Your task to perform on an android device: turn off priority inbox in the gmail app Image 0: 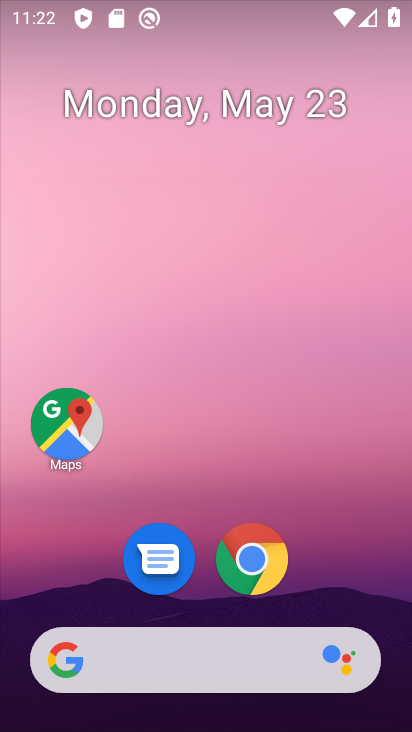
Step 0: drag from (393, 663) to (357, 274)
Your task to perform on an android device: turn off priority inbox in the gmail app Image 1: 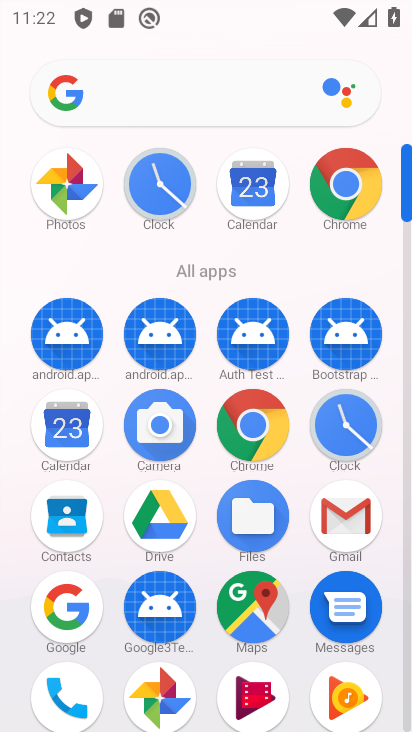
Step 1: click (334, 511)
Your task to perform on an android device: turn off priority inbox in the gmail app Image 2: 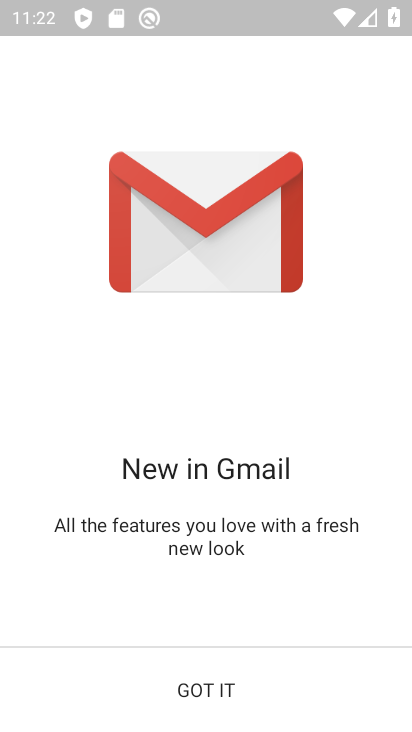
Step 2: click (208, 687)
Your task to perform on an android device: turn off priority inbox in the gmail app Image 3: 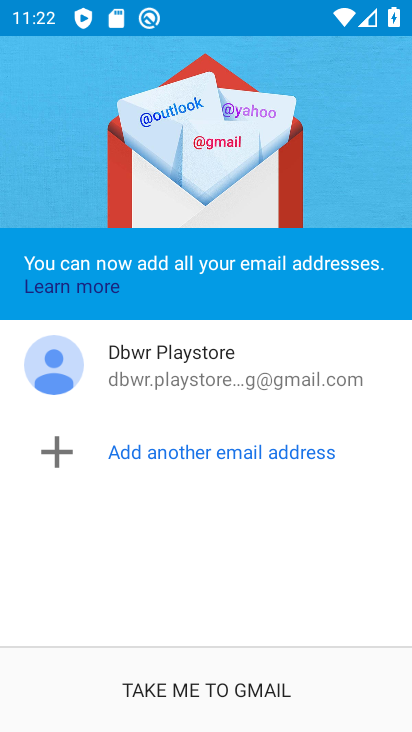
Step 3: click (235, 689)
Your task to perform on an android device: turn off priority inbox in the gmail app Image 4: 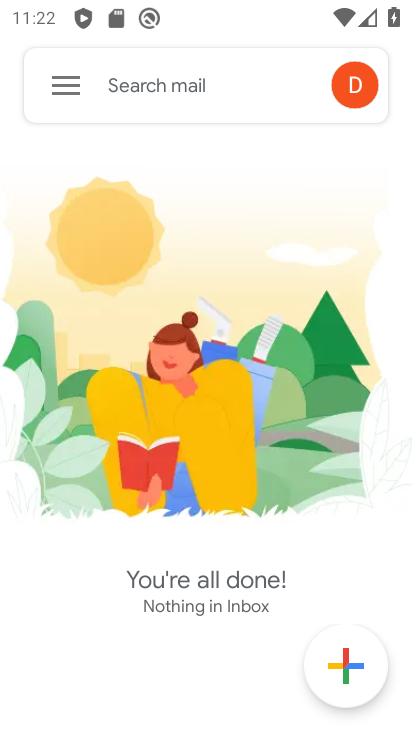
Step 4: click (68, 82)
Your task to perform on an android device: turn off priority inbox in the gmail app Image 5: 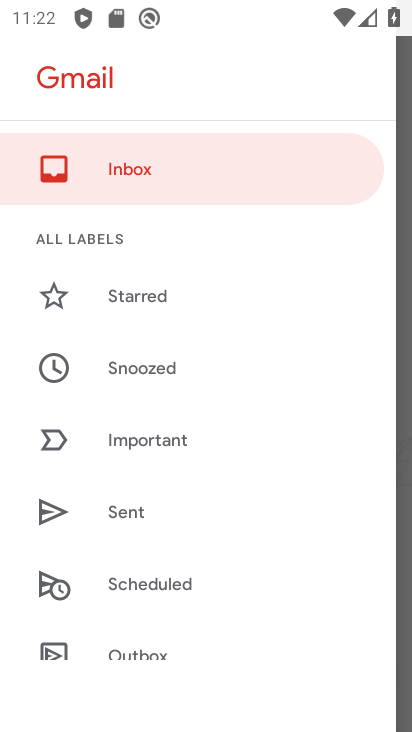
Step 5: drag from (279, 623) to (287, 344)
Your task to perform on an android device: turn off priority inbox in the gmail app Image 6: 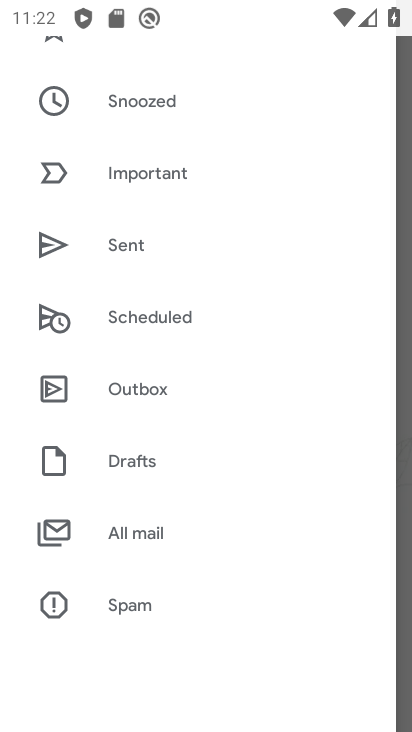
Step 6: drag from (293, 172) to (257, 620)
Your task to perform on an android device: turn off priority inbox in the gmail app Image 7: 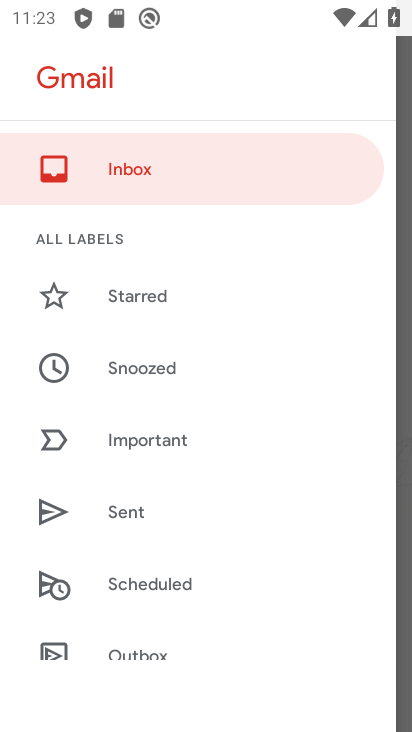
Step 7: drag from (276, 641) to (296, 212)
Your task to perform on an android device: turn off priority inbox in the gmail app Image 8: 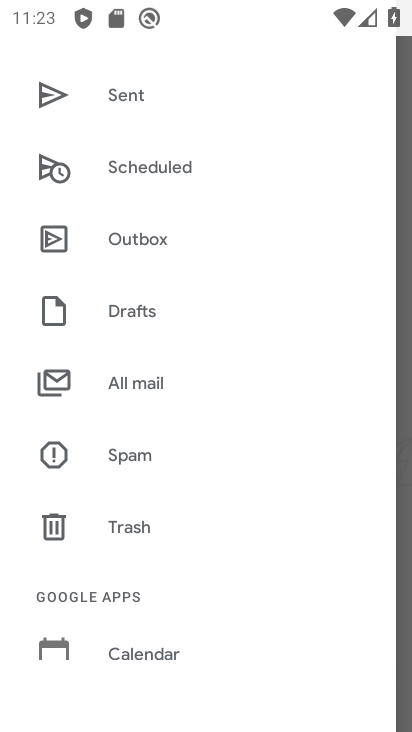
Step 8: drag from (261, 633) to (264, 281)
Your task to perform on an android device: turn off priority inbox in the gmail app Image 9: 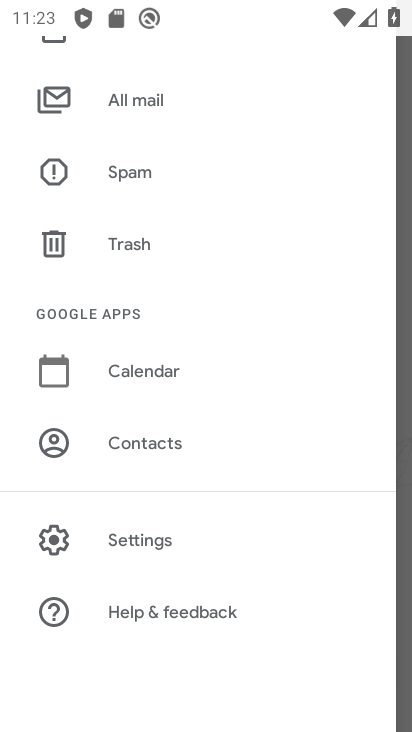
Step 9: click (129, 537)
Your task to perform on an android device: turn off priority inbox in the gmail app Image 10: 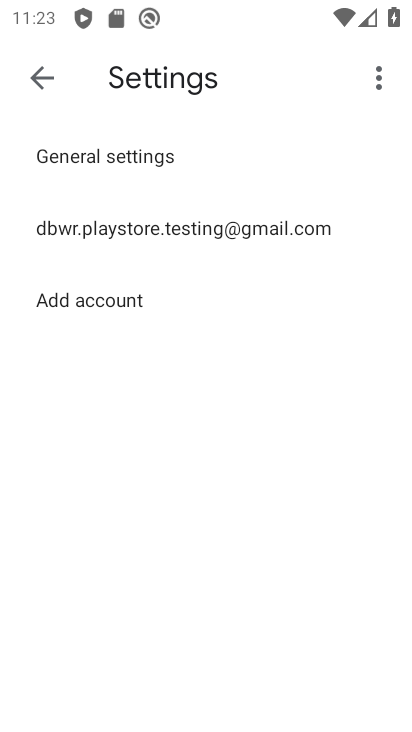
Step 10: click (109, 232)
Your task to perform on an android device: turn off priority inbox in the gmail app Image 11: 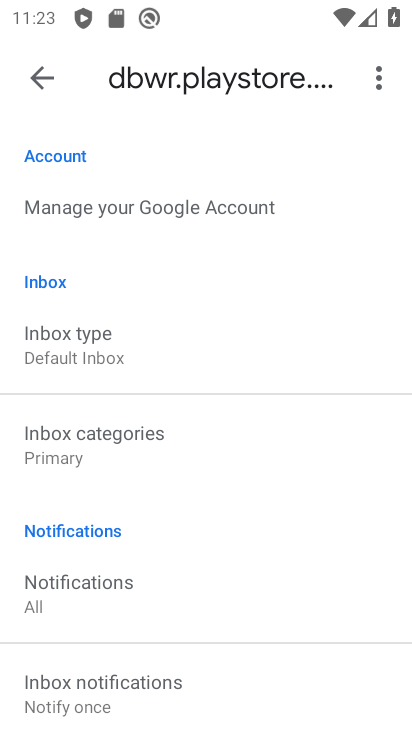
Step 11: click (81, 349)
Your task to perform on an android device: turn off priority inbox in the gmail app Image 12: 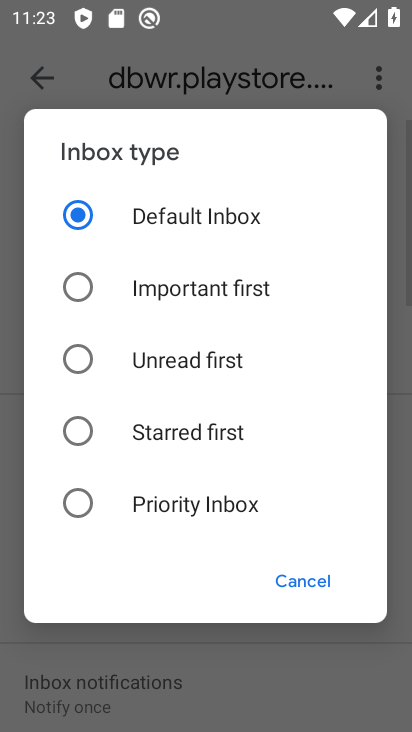
Step 12: click (84, 498)
Your task to perform on an android device: turn off priority inbox in the gmail app Image 13: 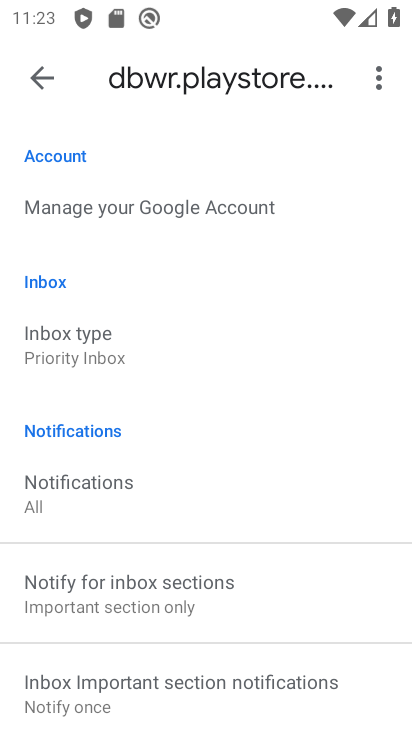
Step 13: click (76, 363)
Your task to perform on an android device: turn off priority inbox in the gmail app Image 14: 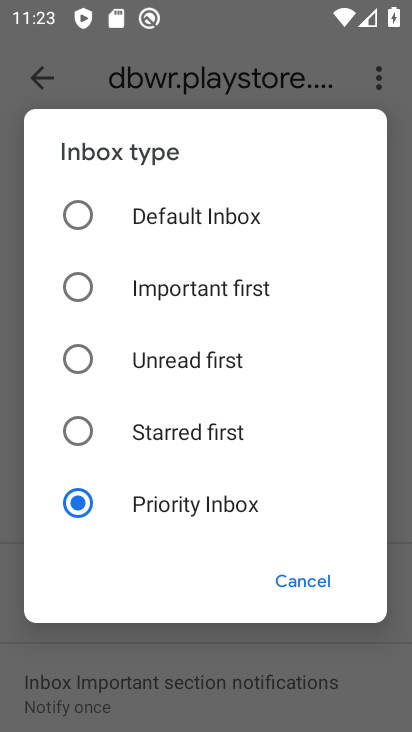
Step 14: click (70, 209)
Your task to perform on an android device: turn off priority inbox in the gmail app Image 15: 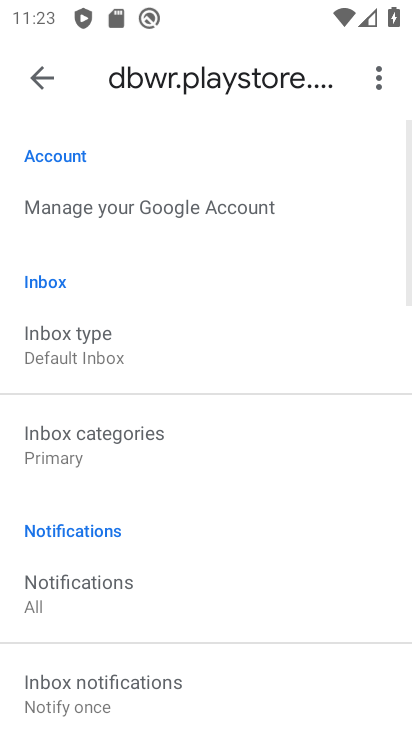
Step 15: task complete